Your task to perform on an android device: change the clock display to show seconds Image 0: 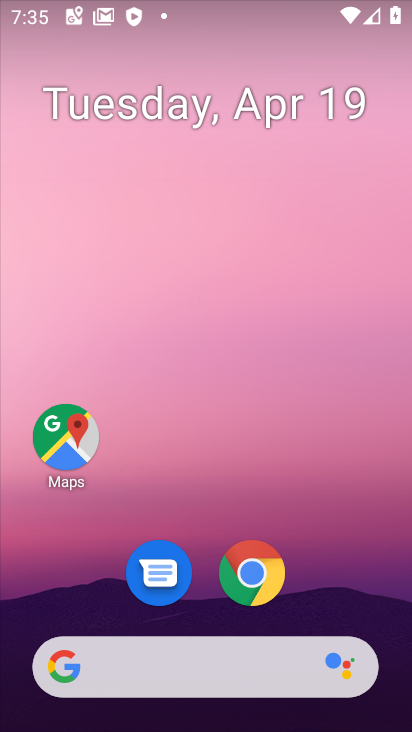
Step 0: drag from (383, 618) to (329, 171)
Your task to perform on an android device: change the clock display to show seconds Image 1: 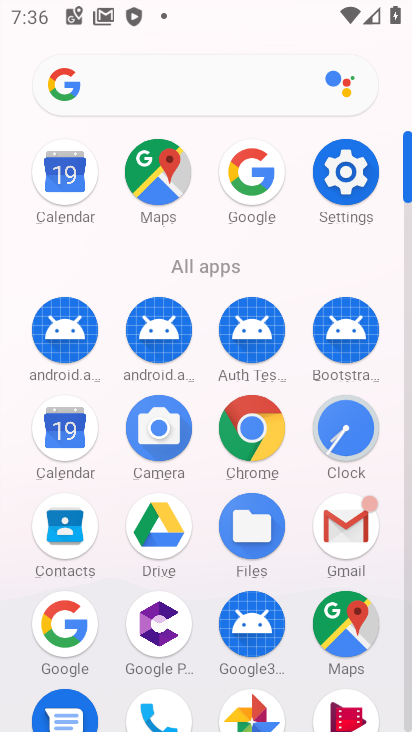
Step 1: click (337, 434)
Your task to perform on an android device: change the clock display to show seconds Image 2: 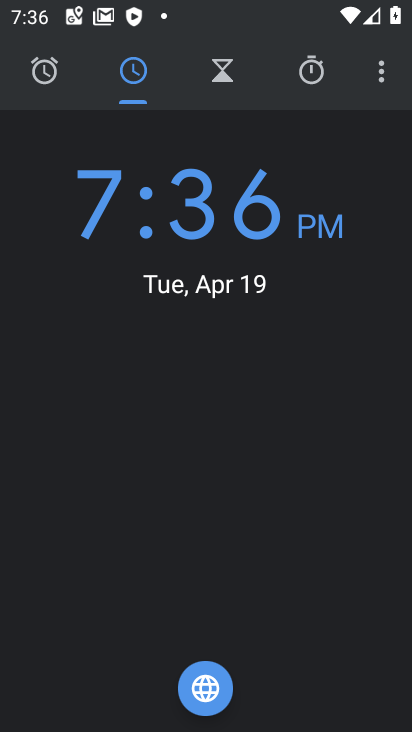
Step 2: click (380, 66)
Your task to perform on an android device: change the clock display to show seconds Image 3: 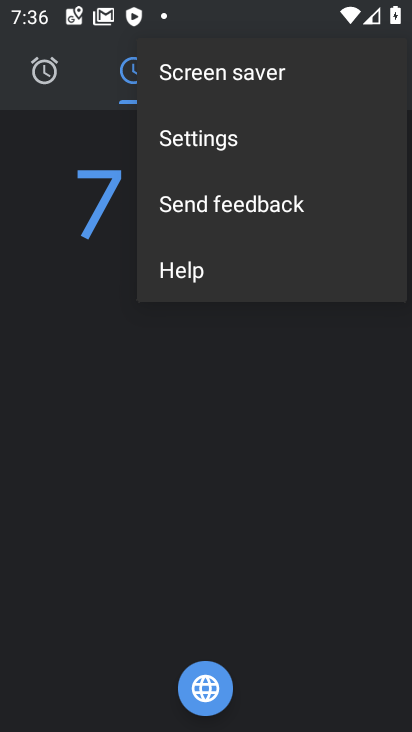
Step 3: click (185, 140)
Your task to perform on an android device: change the clock display to show seconds Image 4: 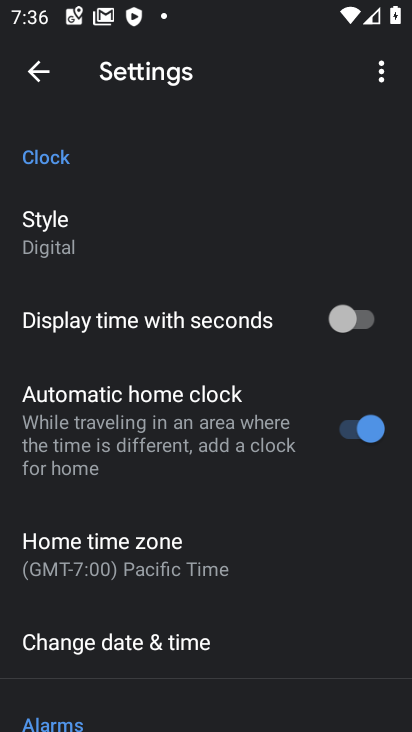
Step 4: click (360, 321)
Your task to perform on an android device: change the clock display to show seconds Image 5: 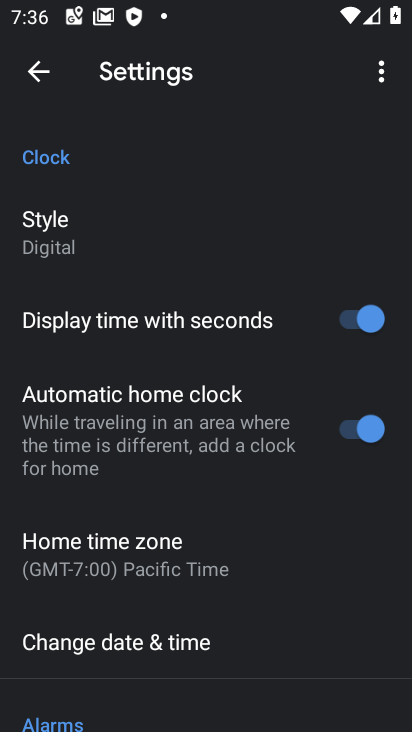
Step 5: task complete